Your task to perform on an android device: see tabs open on other devices in the chrome app Image 0: 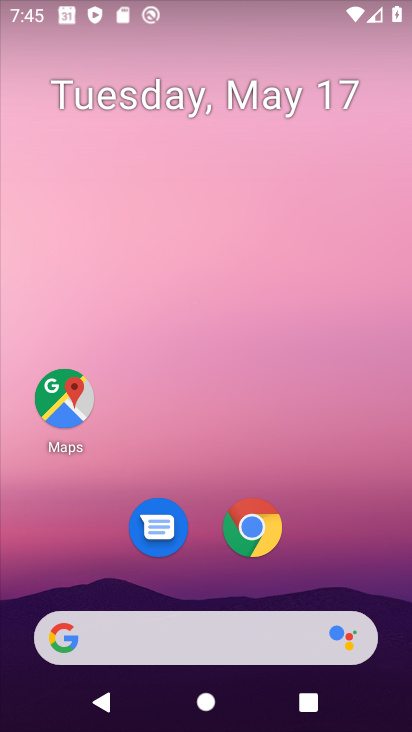
Step 0: press home button
Your task to perform on an android device: see tabs open on other devices in the chrome app Image 1: 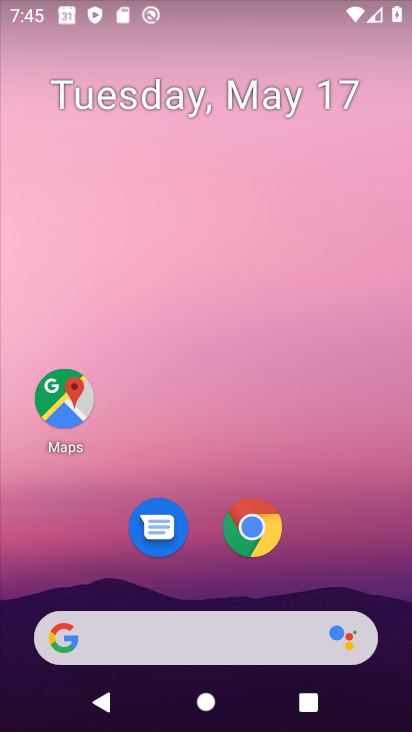
Step 1: drag from (263, 662) to (294, 211)
Your task to perform on an android device: see tabs open on other devices in the chrome app Image 2: 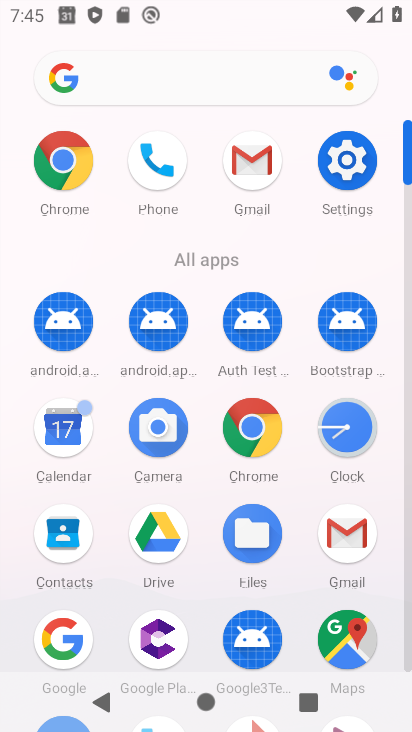
Step 2: click (247, 421)
Your task to perform on an android device: see tabs open on other devices in the chrome app Image 3: 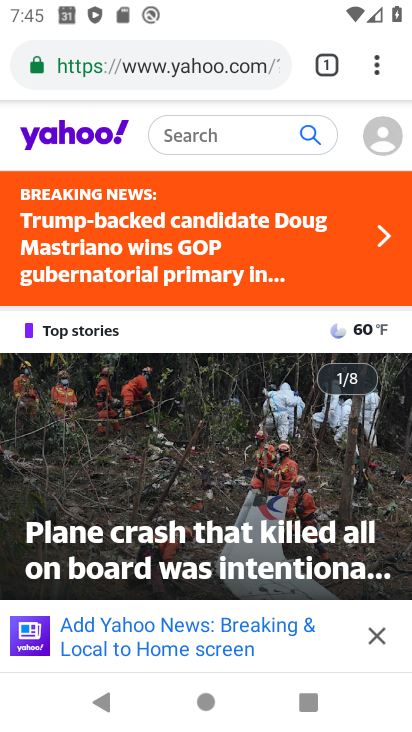
Step 3: click (329, 69)
Your task to perform on an android device: see tabs open on other devices in the chrome app Image 4: 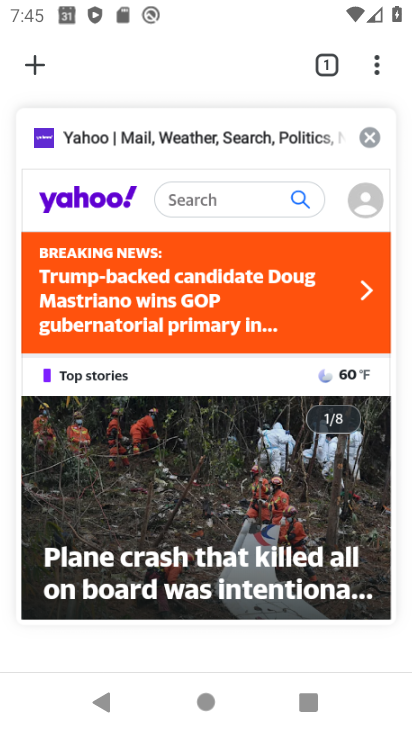
Step 4: click (16, 65)
Your task to perform on an android device: see tabs open on other devices in the chrome app Image 5: 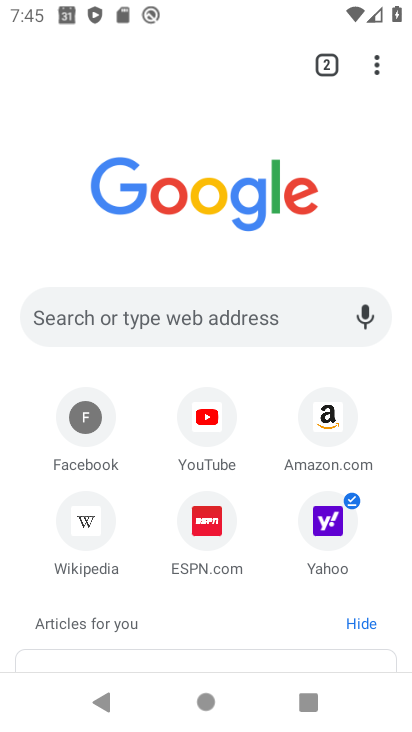
Step 5: task complete